Your task to perform on an android device: What's the weather? Image 0: 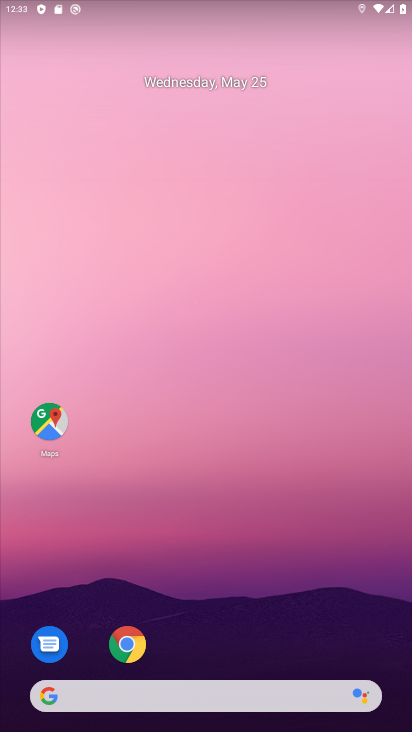
Step 0: click (201, 687)
Your task to perform on an android device: What's the weather? Image 1: 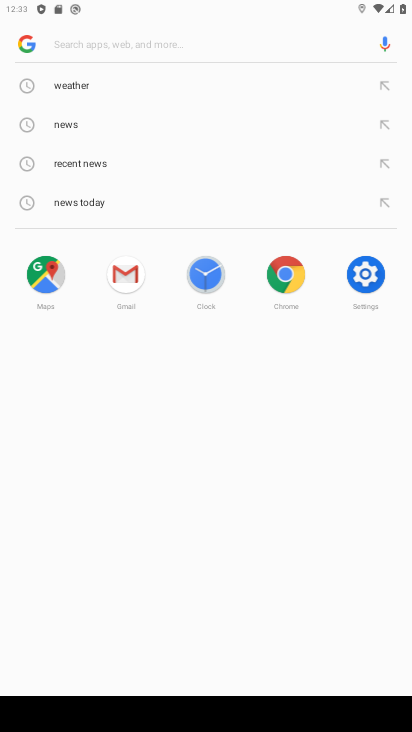
Step 1: click (181, 698)
Your task to perform on an android device: What's the weather? Image 2: 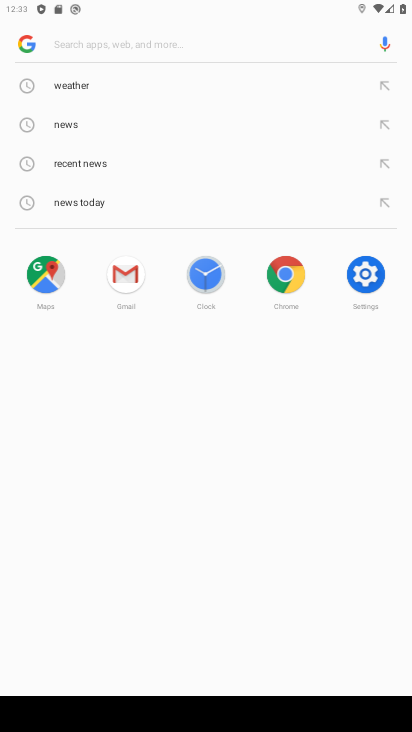
Step 2: click (63, 84)
Your task to perform on an android device: What's the weather? Image 3: 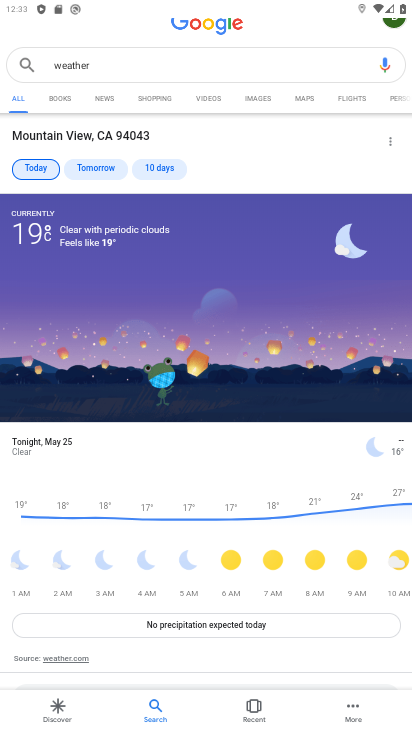
Step 3: task complete